Your task to perform on an android device: Open the calendar and show me this week's events? Image 0: 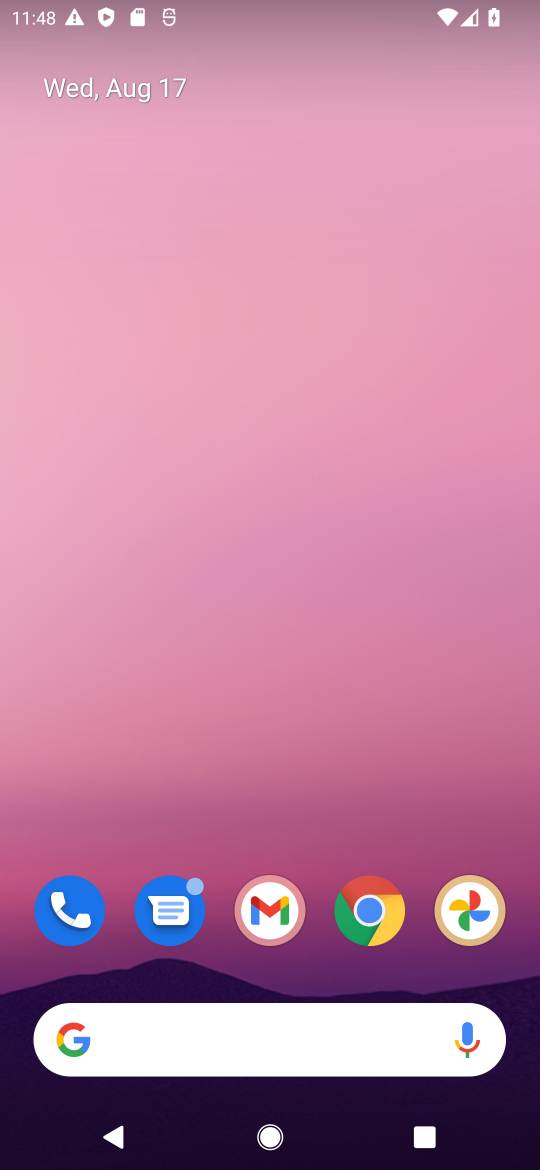
Step 0: drag from (244, 815) to (291, 139)
Your task to perform on an android device: Open the calendar and show me this week's events? Image 1: 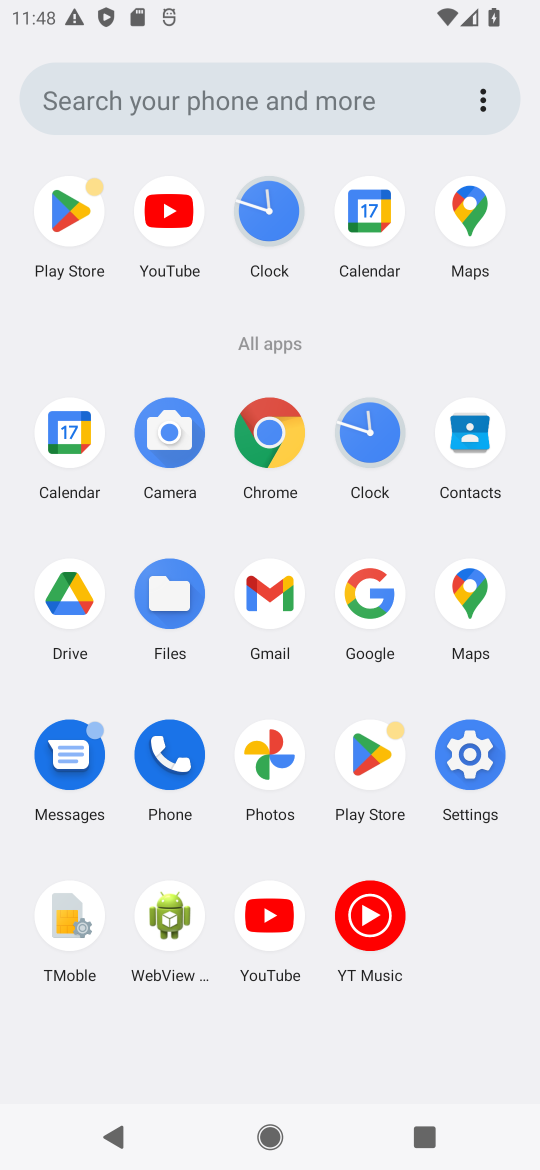
Step 1: click (382, 214)
Your task to perform on an android device: Open the calendar and show me this week's events? Image 2: 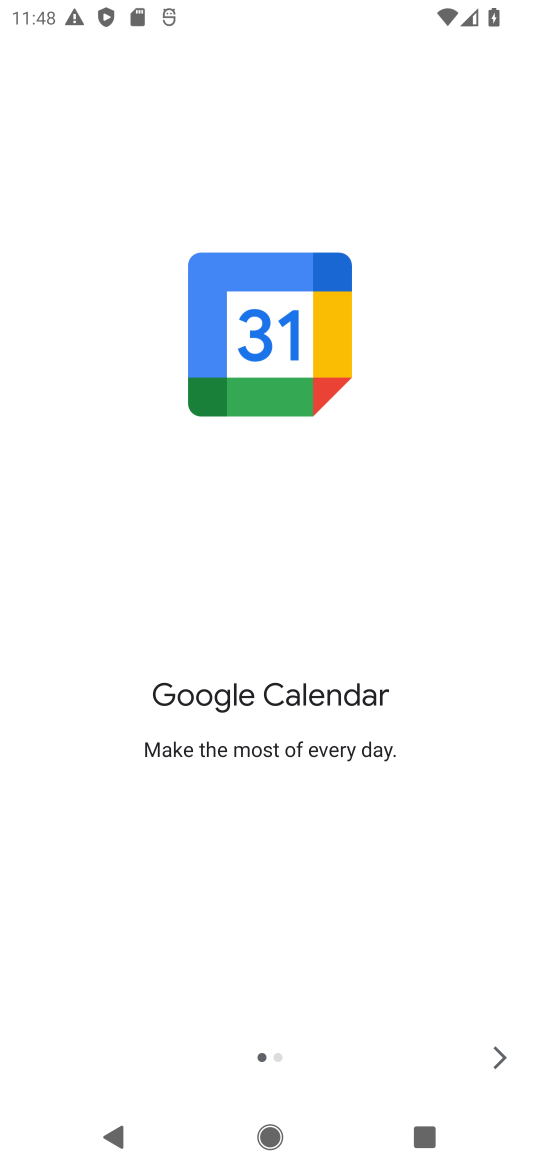
Step 2: click (493, 1041)
Your task to perform on an android device: Open the calendar and show me this week's events? Image 3: 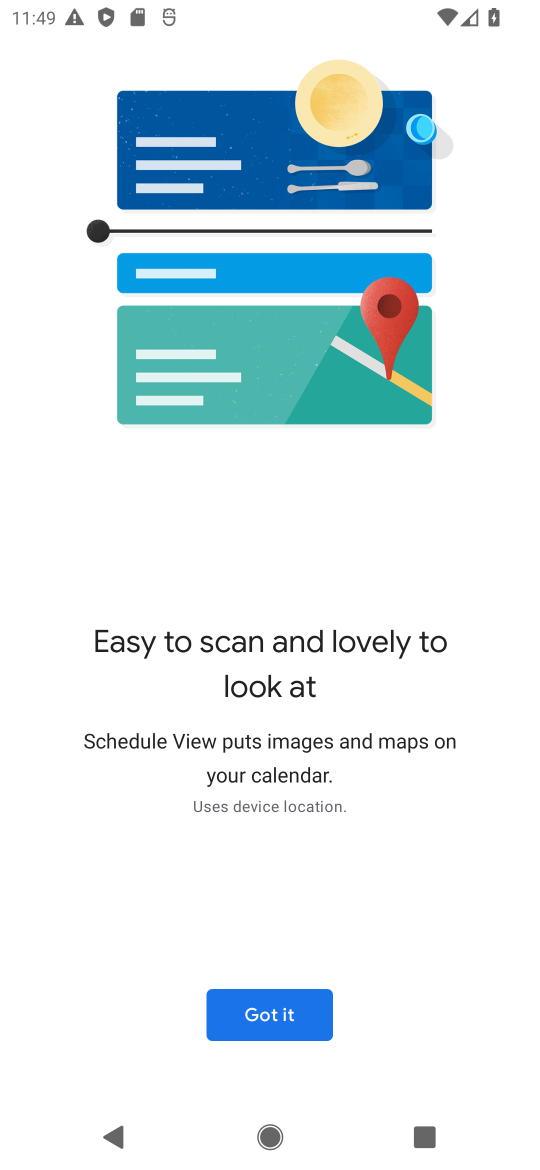
Step 3: click (269, 1014)
Your task to perform on an android device: Open the calendar and show me this week's events? Image 4: 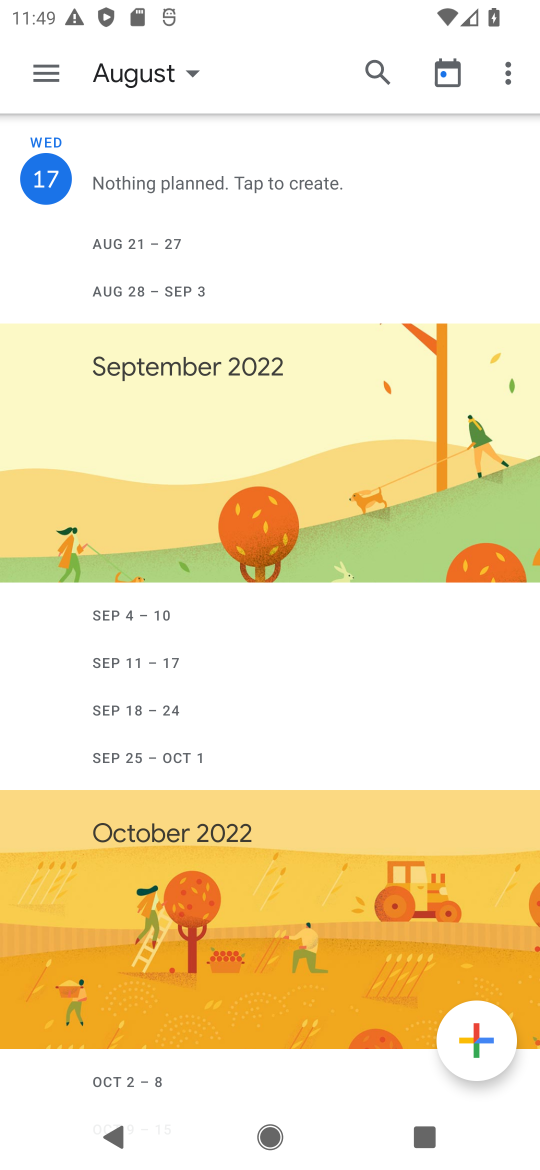
Step 4: task complete